Your task to perform on an android device: What's on my calendar tomorrow? Image 0: 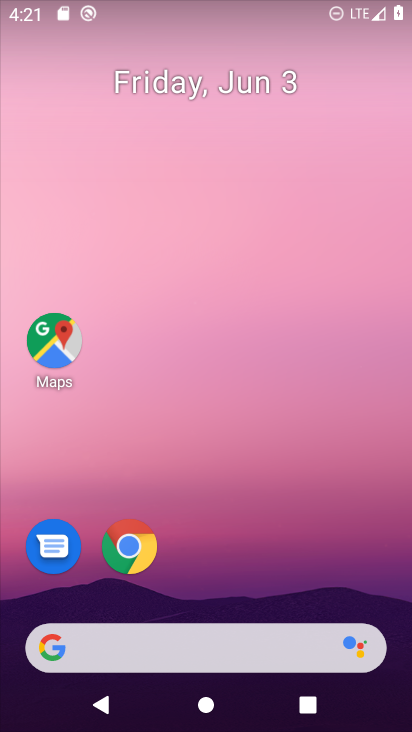
Step 0: drag from (230, 565) to (296, 28)
Your task to perform on an android device: What's on my calendar tomorrow? Image 1: 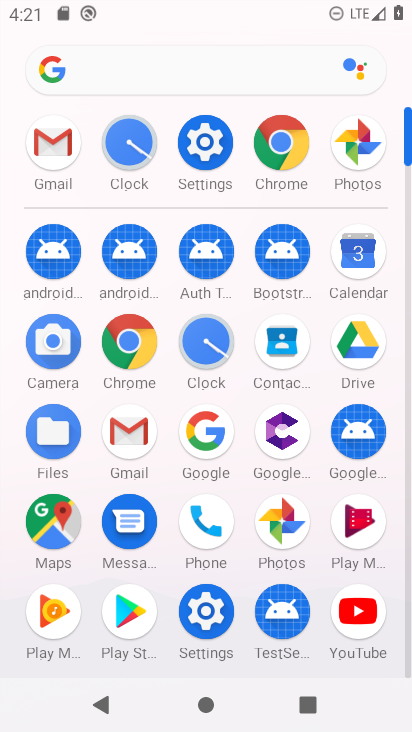
Step 1: click (355, 236)
Your task to perform on an android device: What's on my calendar tomorrow? Image 2: 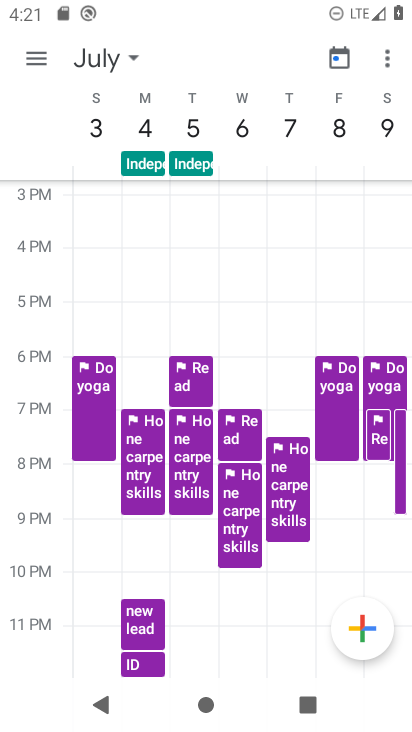
Step 2: click (39, 58)
Your task to perform on an android device: What's on my calendar tomorrow? Image 3: 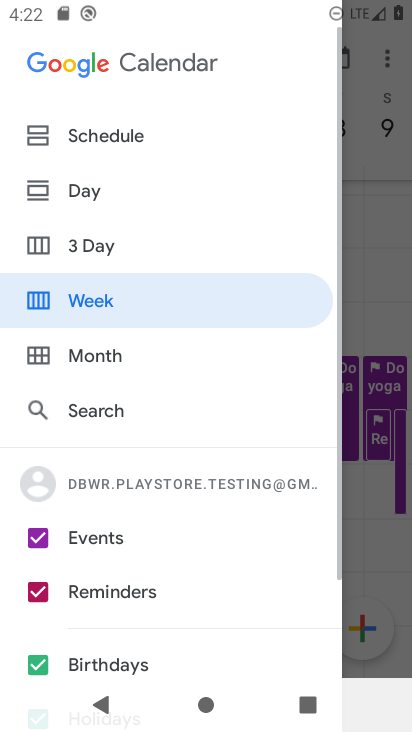
Step 3: click (61, 350)
Your task to perform on an android device: What's on my calendar tomorrow? Image 4: 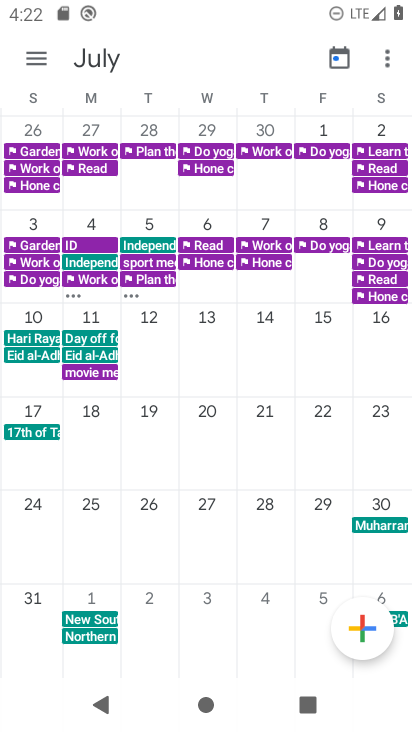
Step 4: drag from (45, 304) to (410, 179)
Your task to perform on an android device: What's on my calendar tomorrow? Image 5: 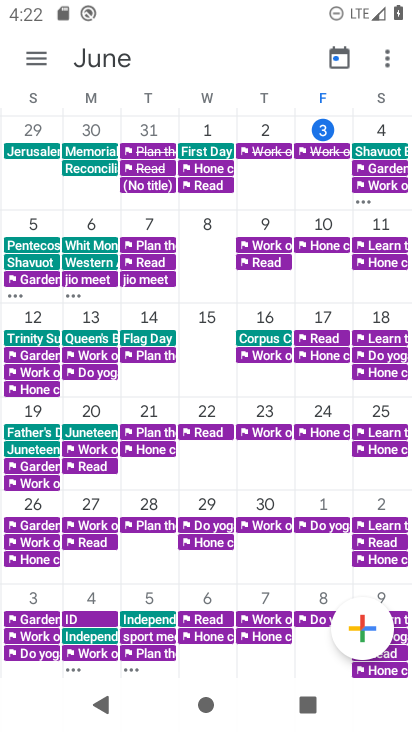
Step 5: click (317, 122)
Your task to perform on an android device: What's on my calendar tomorrow? Image 6: 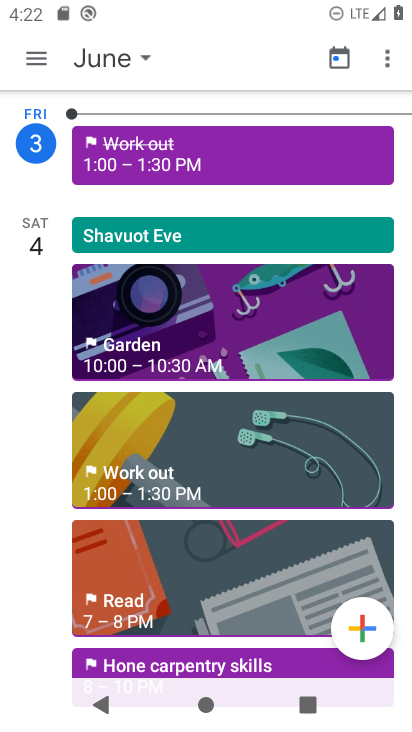
Step 6: task complete